Your task to perform on an android device: What's the weather today? Image 0: 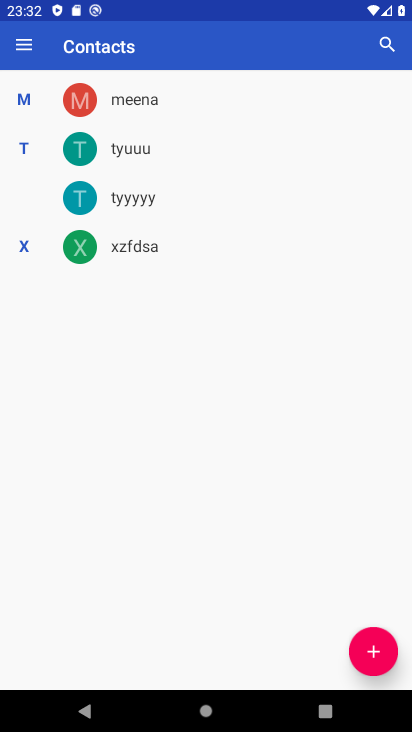
Step 0: press home button
Your task to perform on an android device: What's the weather today? Image 1: 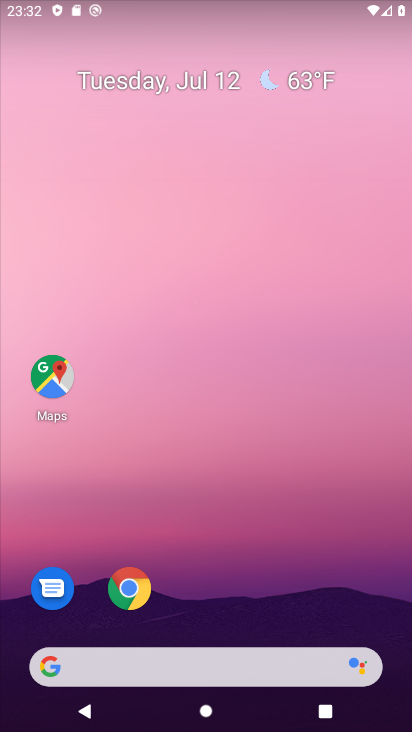
Step 1: click (129, 682)
Your task to perform on an android device: What's the weather today? Image 2: 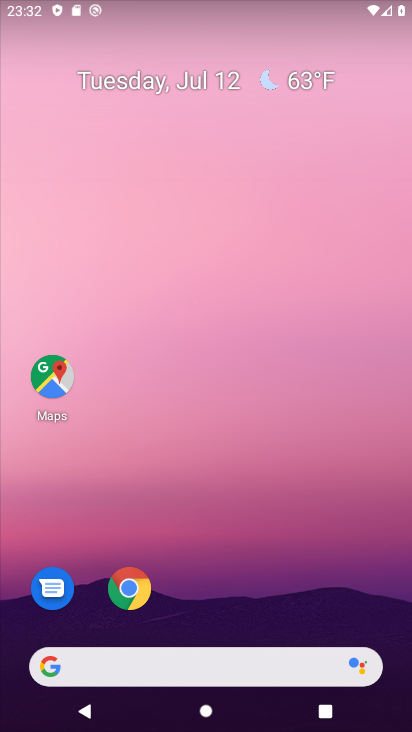
Step 2: click (116, 634)
Your task to perform on an android device: What's the weather today? Image 3: 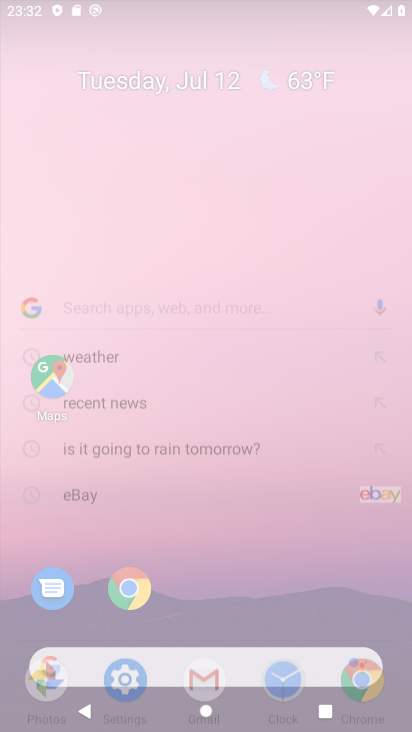
Step 3: click (115, 664)
Your task to perform on an android device: What's the weather today? Image 4: 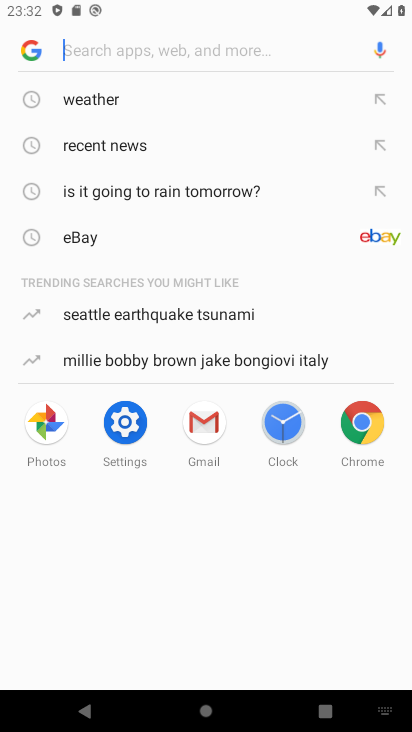
Step 4: type "What's the weather today?"
Your task to perform on an android device: What's the weather today? Image 5: 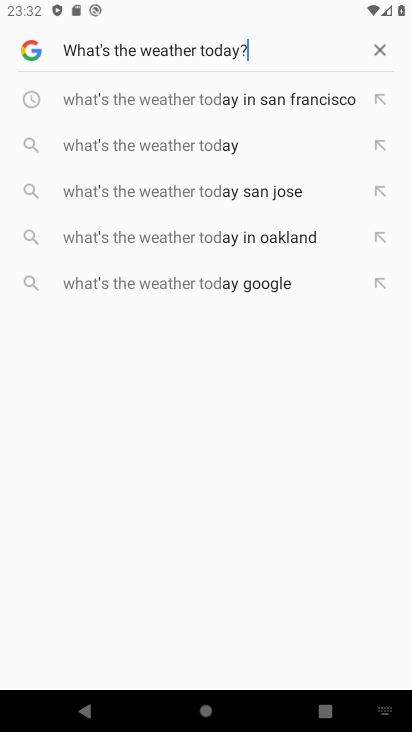
Step 5: type ""
Your task to perform on an android device: What's the weather today? Image 6: 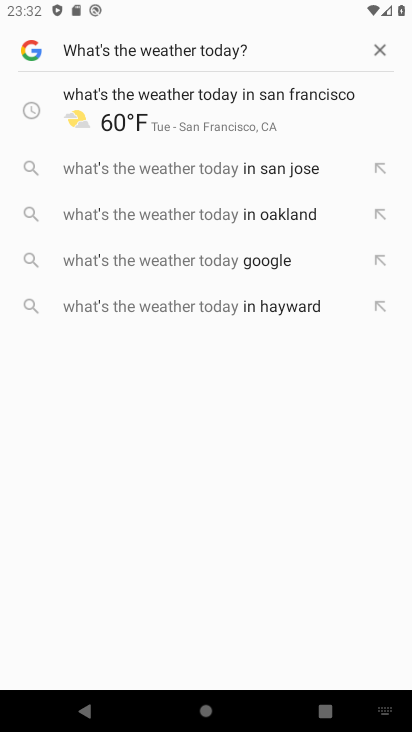
Step 6: task complete